Your task to perform on an android device: Show me popular videos on Youtube Image 0: 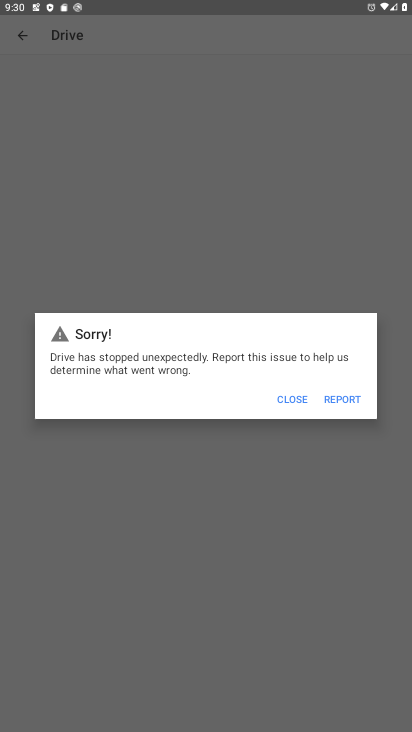
Step 0: press home button
Your task to perform on an android device: Show me popular videos on Youtube Image 1: 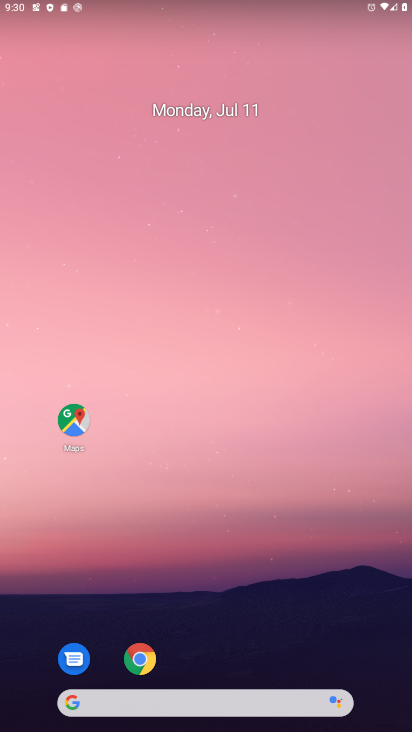
Step 1: drag from (132, 564) to (132, 137)
Your task to perform on an android device: Show me popular videos on Youtube Image 2: 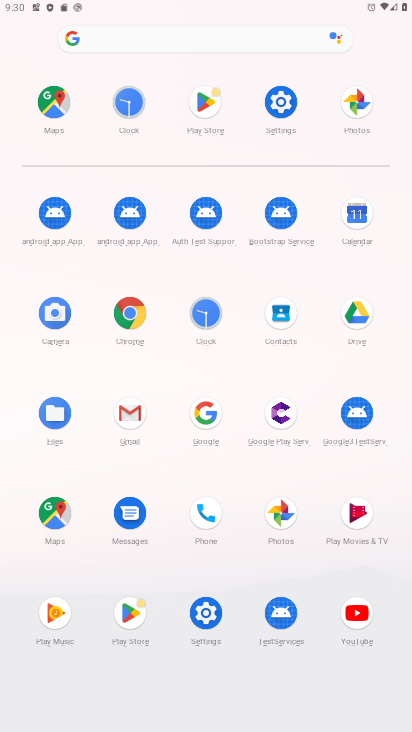
Step 2: click (347, 615)
Your task to perform on an android device: Show me popular videos on Youtube Image 3: 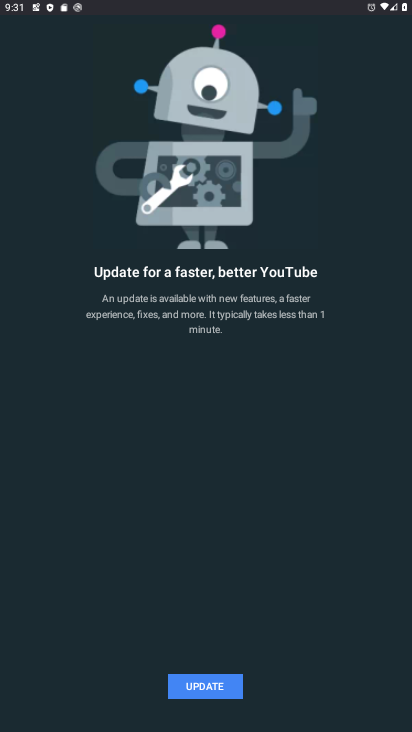
Step 3: click (181, 685)
Your task to perform on an android device: Show me popular videos on Youtube Image 4: 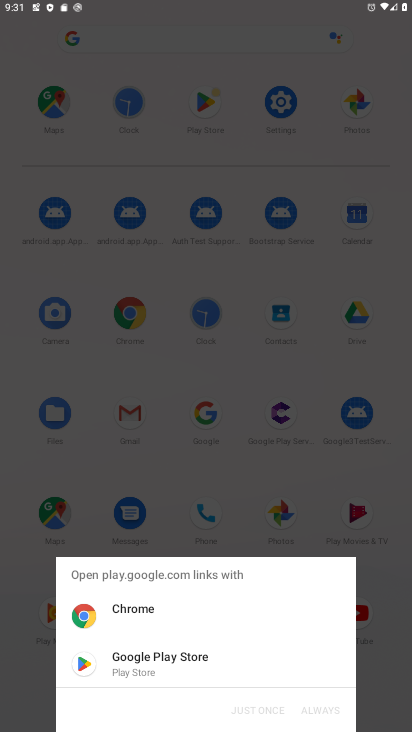
Step 4: click (119, 655)
Your task to perform on an android device: Show me popular videos on Youtube Image 5: 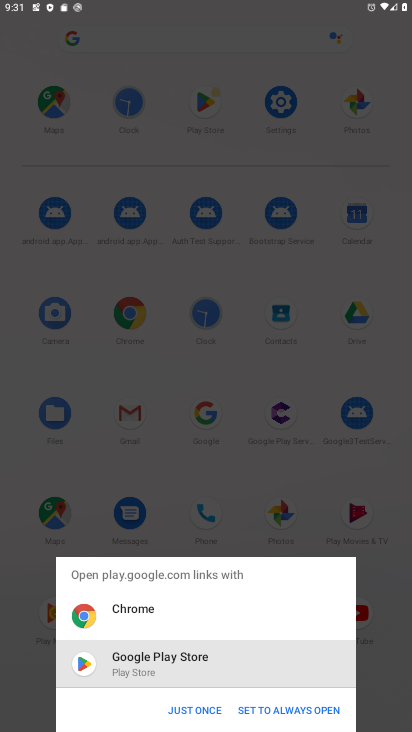
Step 5: click (187, 703)
Your task to perform on an android device: Show me popular videos on Youtube Image 6: 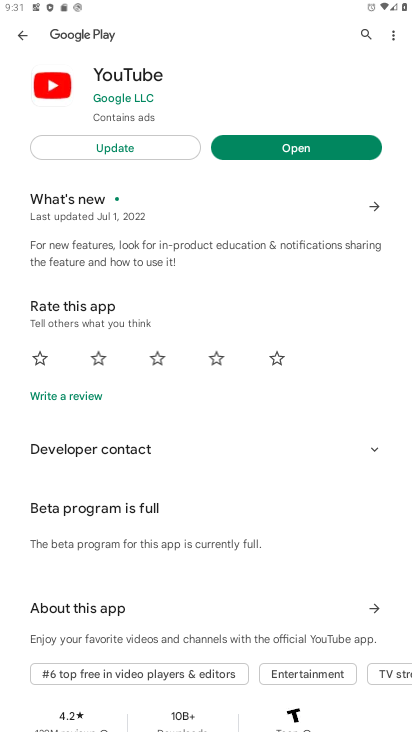
Step 6: click (116, 140)
Your task to perform on an android device: Show me popular videos on Youtube Image 7: 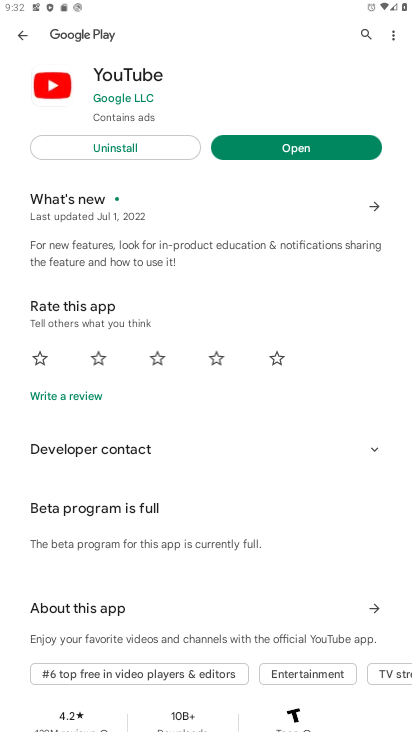
Step 7: click (239, 141)
Your task to perform on an android device: Show me popular videos on Youtube Image 8: 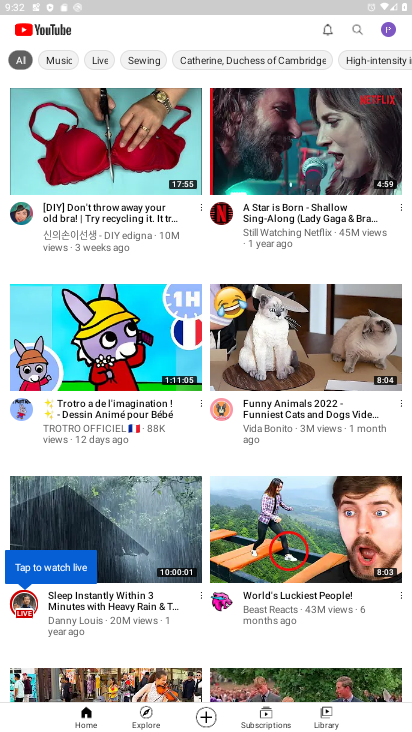
Step 8: click (141, 716)
Your task to perform on an android device: Show me popular videos on Youtube Image 9: 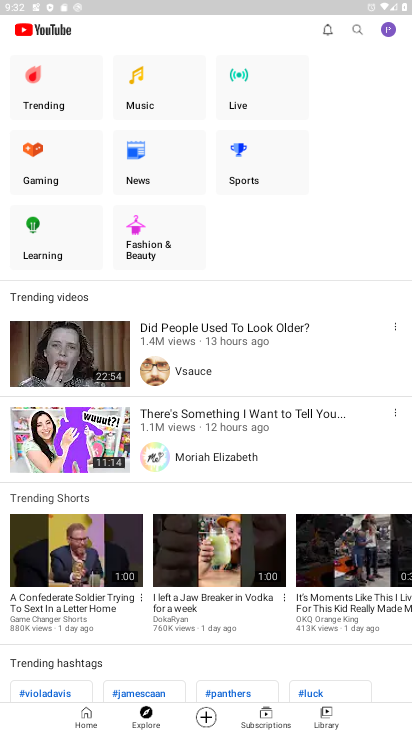
Step 9: task complete